Your task to perform on an android device: Go to internet settings Image 0: 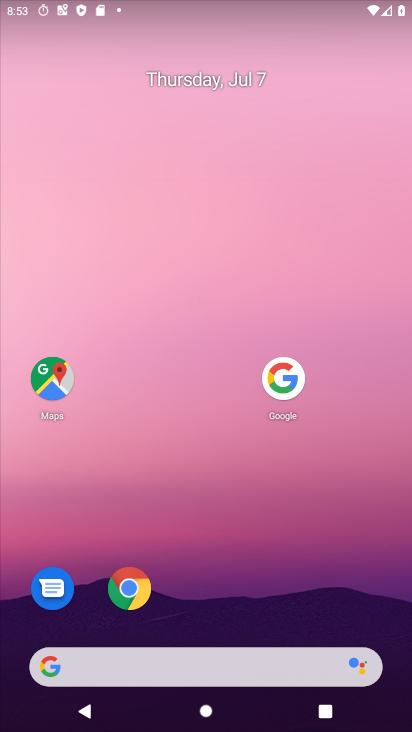
Step 0: drag from (205, 630) to (333, 52)
Your task to perform on an android device: Go to internet settings Image 1: 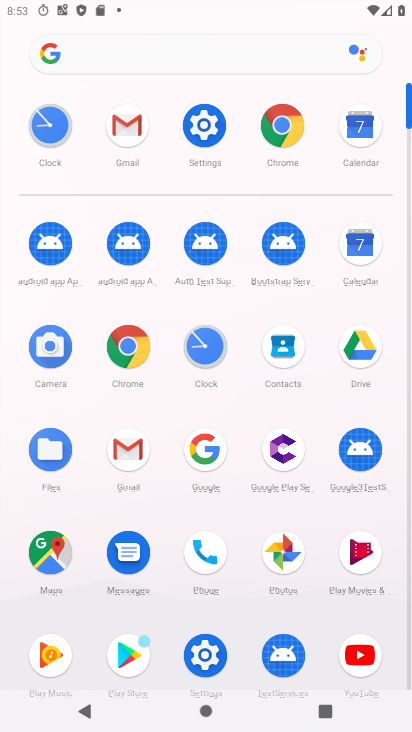
Step 1: click (196, 135)
Your task to perform on an android device: Go to internet settings Image 2: 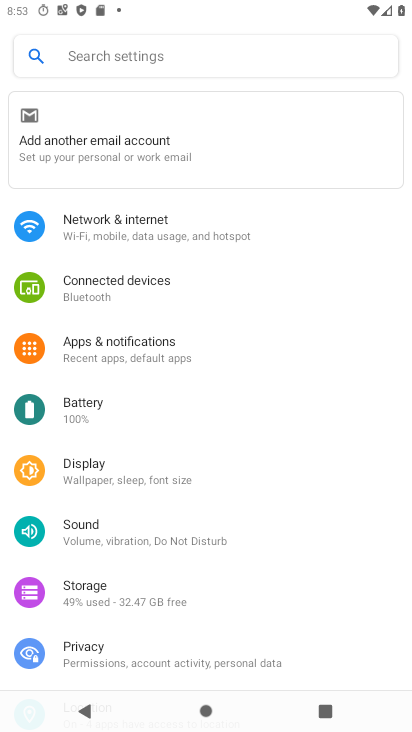
Step 2: click (149, 231)
Your task to perform on an android device: Go to internet settings Image 3: 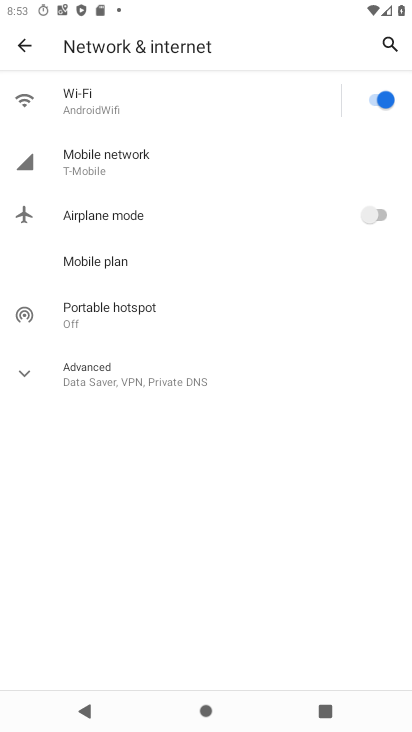
Step 3: task complete